Your task to perform on an android device: Go to accessibility settings Image 0: 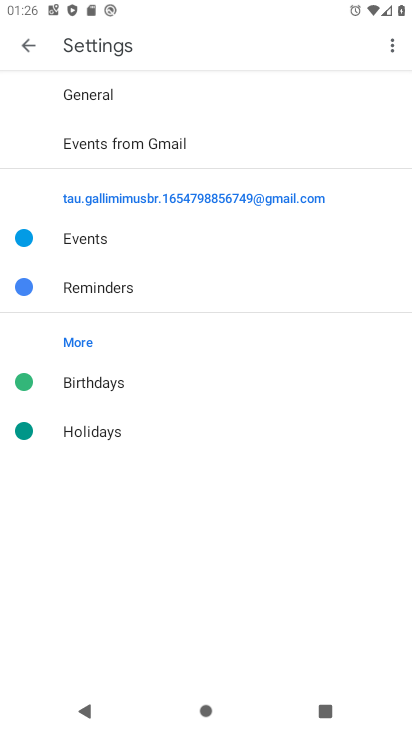
Step 0: press back button
Your task to perform on an android device: Go to accessibility settings Image 1: 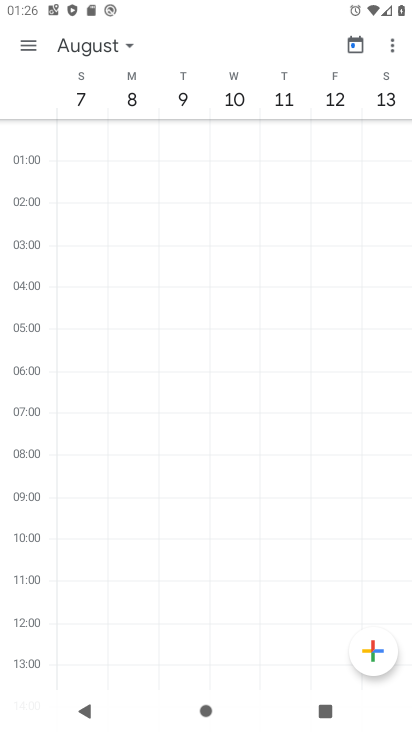
Step 1: press home button
Your task to perform on an android device: Go to accessibility settings Image 2: 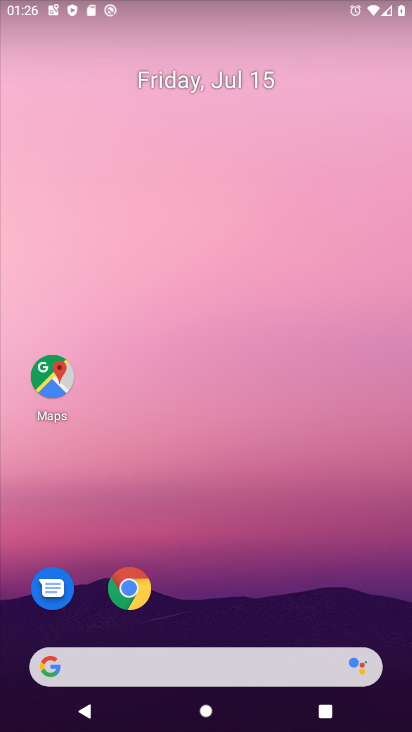
Step 2: drag from (393, 633) to (315, 56)
Your task to perform on an android device: Go to accessibility settings Image 3: 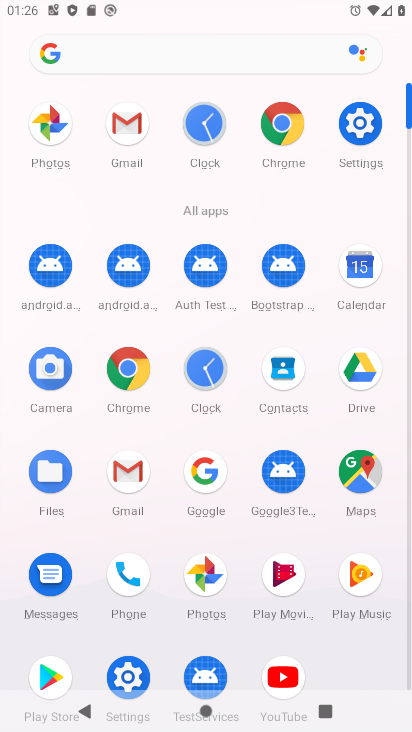
Step 3: click (124, 678)
Your task to perform on an android device: Go to accessibility settings Image 4: 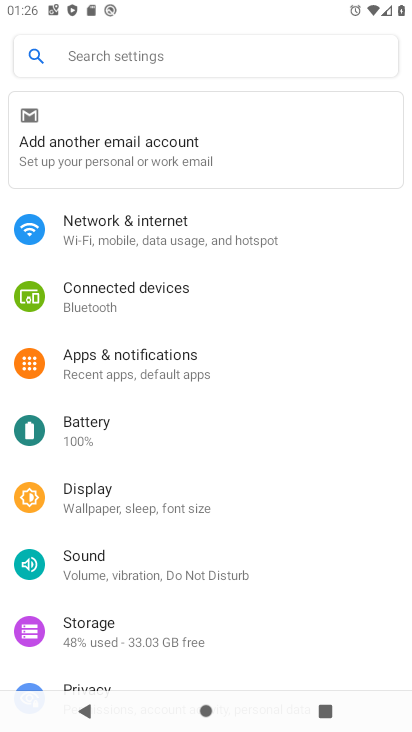
Step 4: drag from (306, 593) to (331, 283)
Your task to perform on an android device: Go to accessibility settings Image 5: 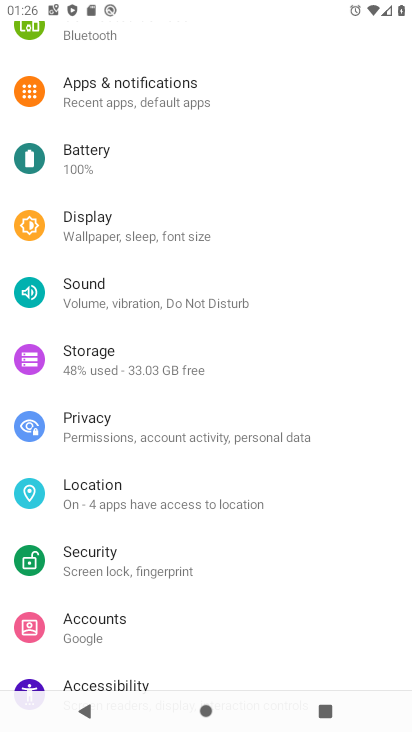
Step 5: drag from (255, 613) to (311, 192)
Your task to perform on an android device: Go to accessibility settings Image 6: 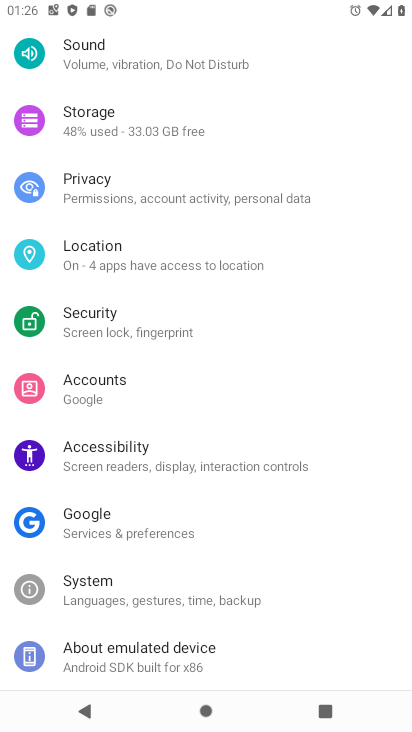
Step 6: click (97, 463)
Your task to perform on an android device: Go to accessibility settings Image 7: 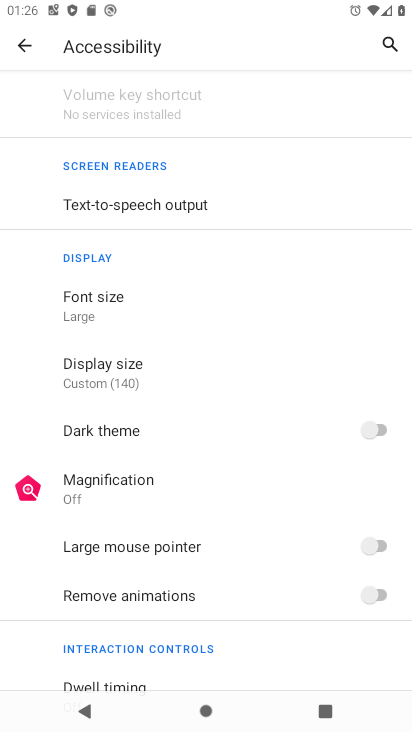
Step 7: task complete